Your task to perform on an android device: What's a goodrestaurant in Austin? Image 0: 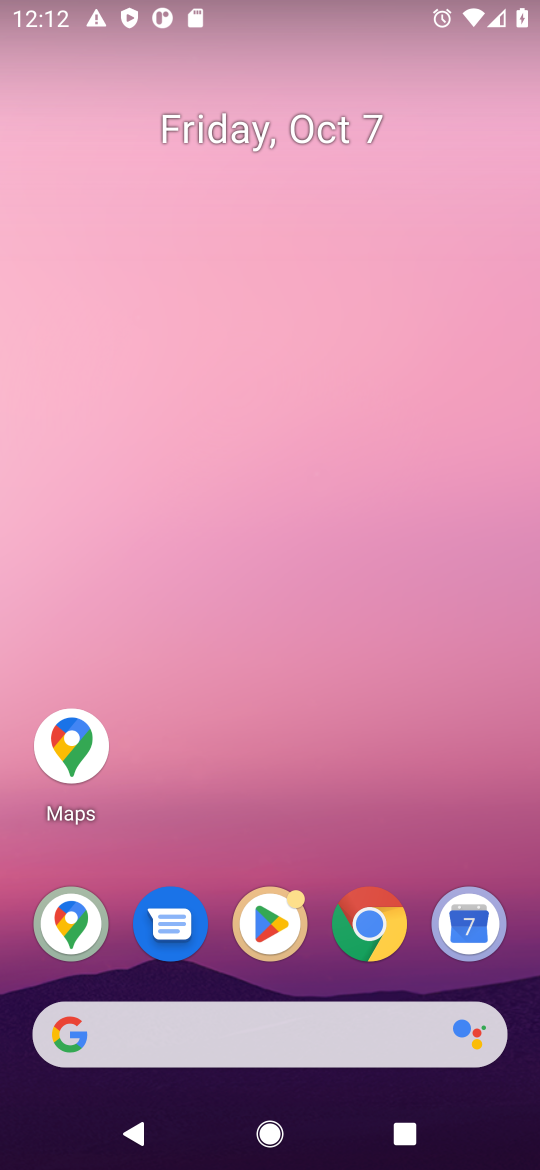
Step 0: click (62, 744)
Your task to perform on an android device: What's a goodrestaurant in Austin? Image 1: 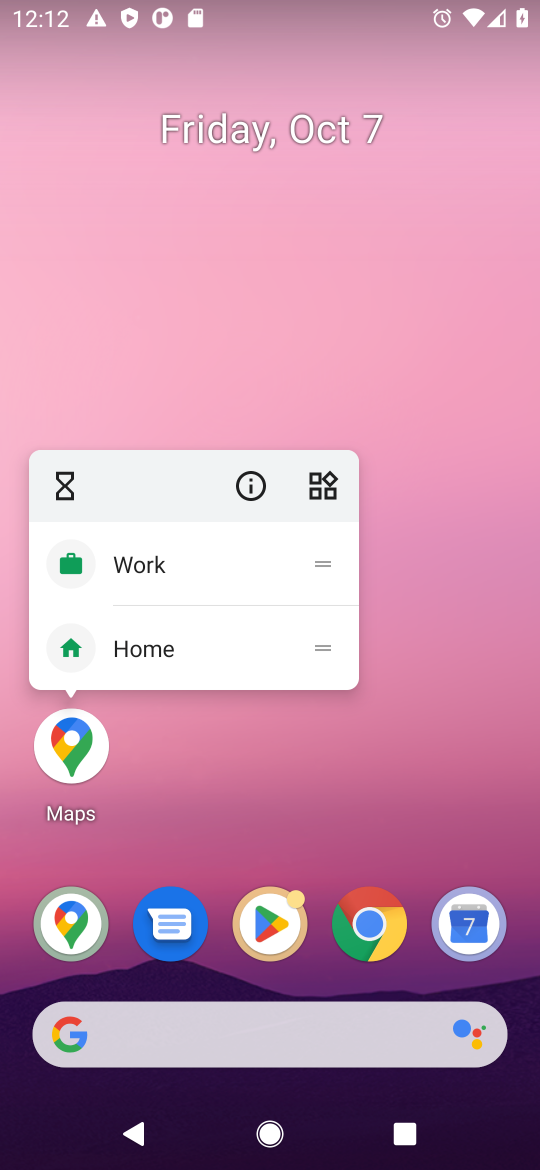
Step 1: click (368, 901)
Your task to perform on an android device: What's a goodrestaurant in Austin? Image 2: 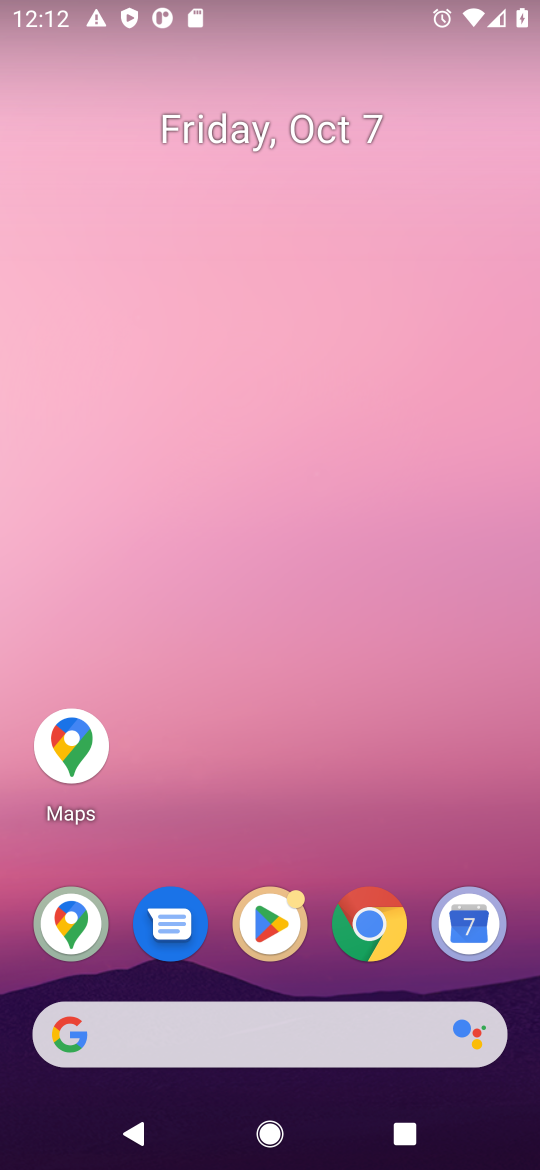
Step 2: click (376, 919)
Your task to perform on an android device: What's a goodrestaurant in Austin? Image 3: 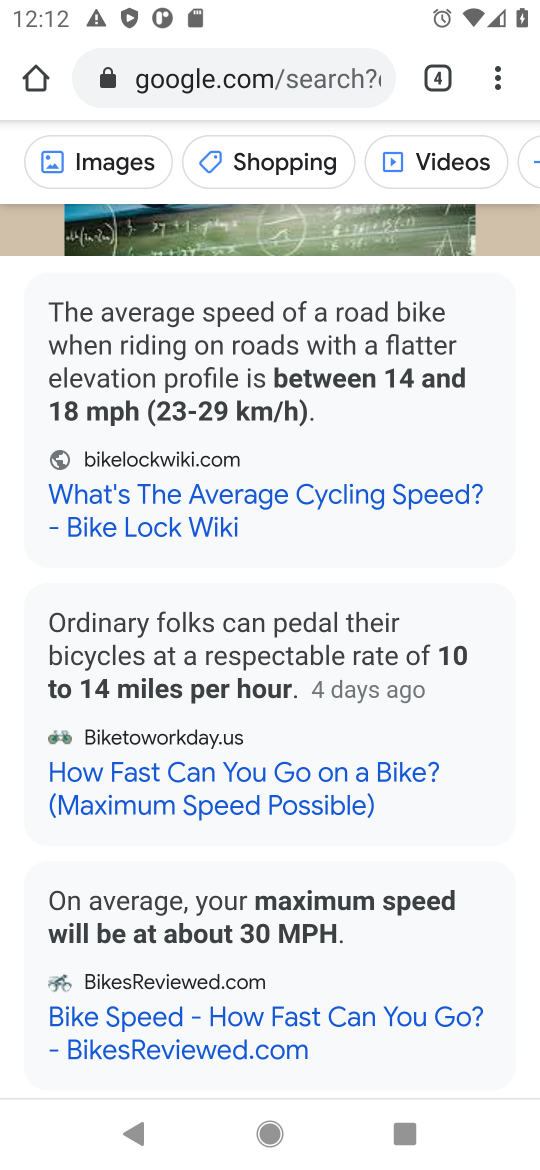
Step 3: click (316, 73)
Your task to perform on an android device: What's a goodrestaurant in Austin? Image 4: 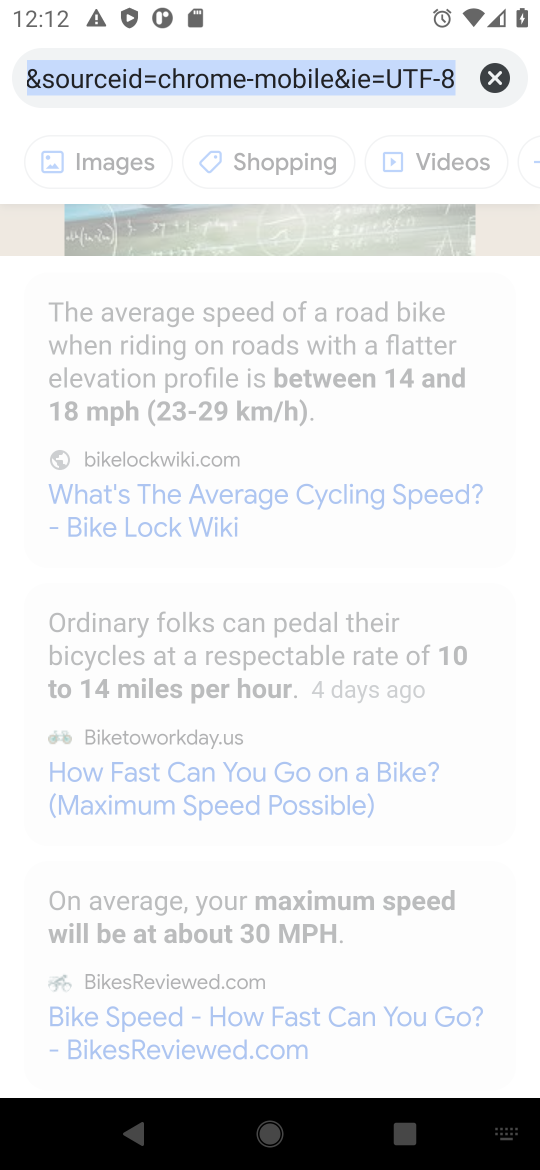
Step 4: click (493, 69)
Your task to perform on an android device: What's a goodrestaurant in Austin? Image 5: 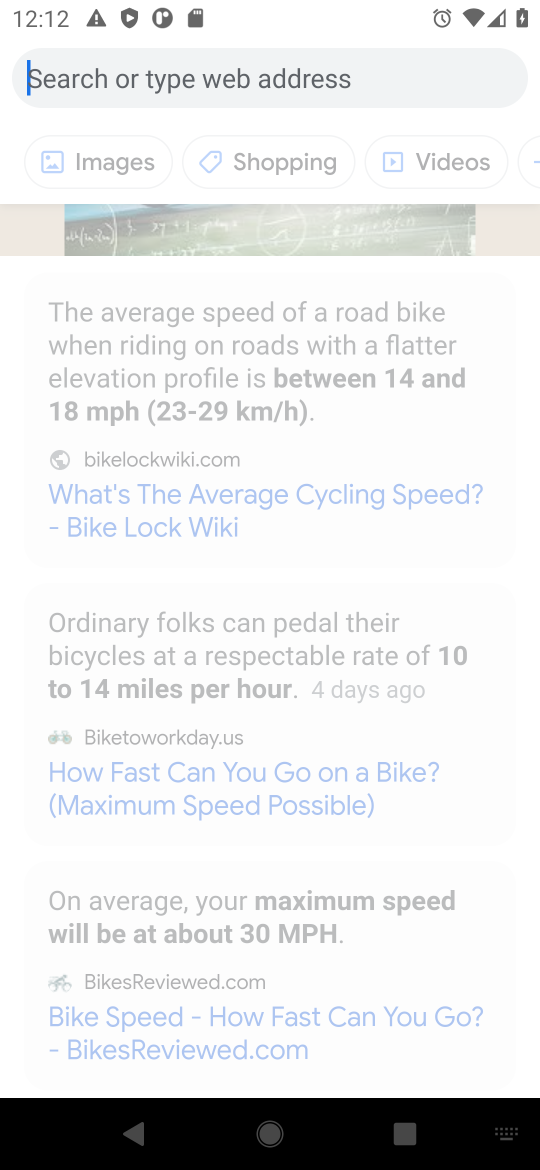
Step 5: type "good restaurant in Austin"
Your task to perform on an android device: What's a goodrestaurant in Austin? Image 6: 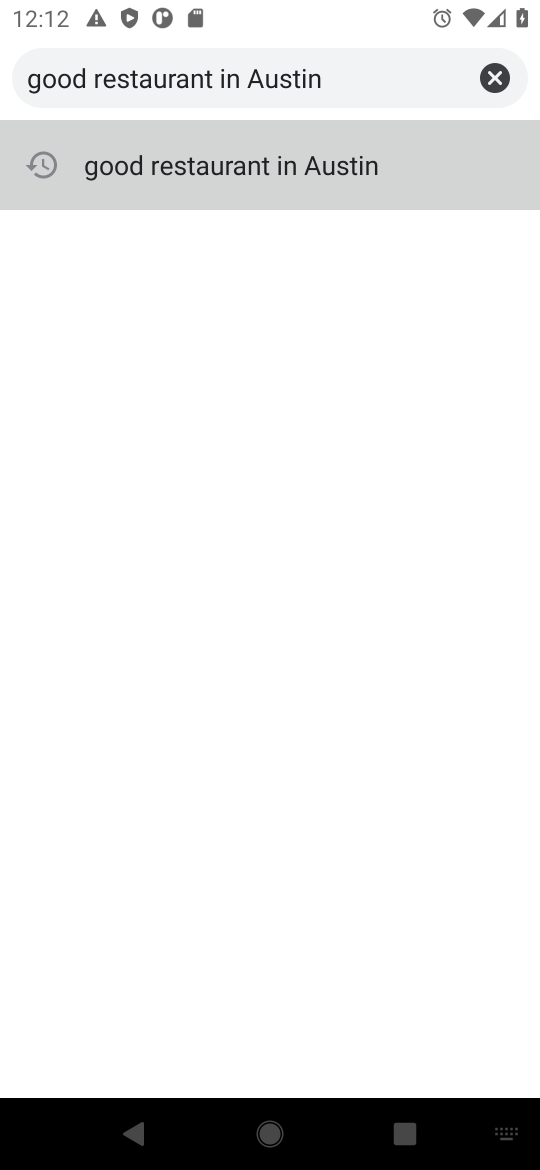
Step 6: click (199, 170)
Your task to perform on an android device: What's a goodrestaurant in Austin? Image 7: 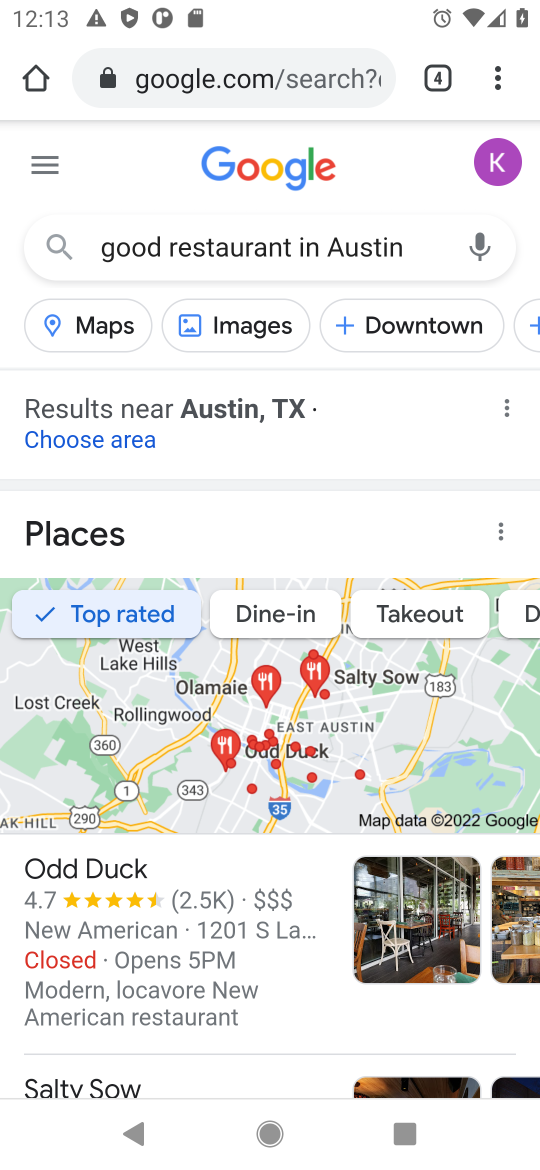
Step 7: drag from (244, 971) to (402, 292)
Your task to perform on an android device: What's a goodrestaurant in Austin? Image 8: 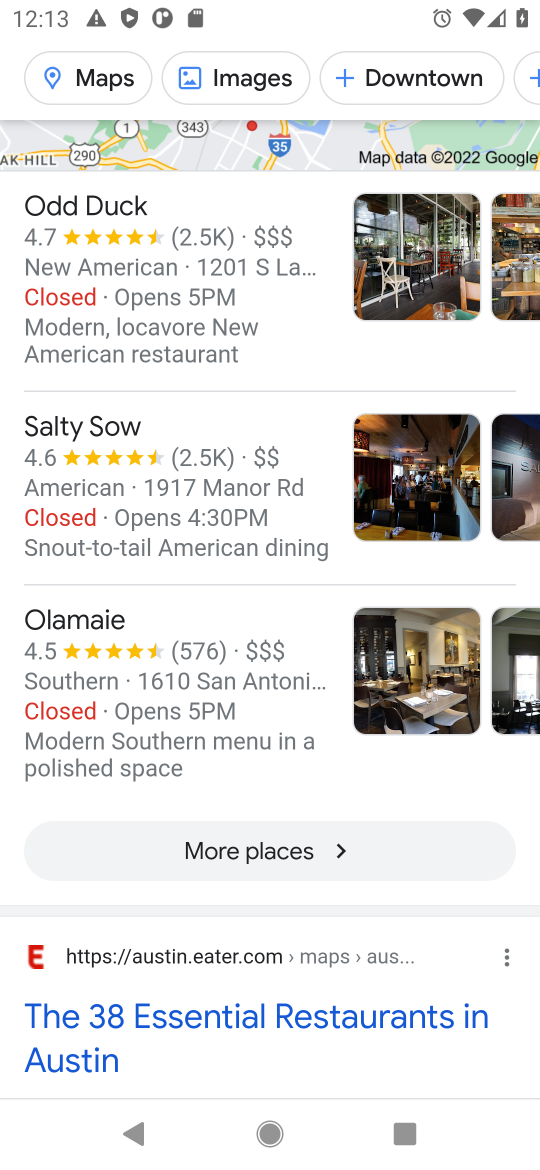
Step 8: click (331, 850)
Your task to perform on an android device: What's a goodrestaurant in Austin? Image 9: 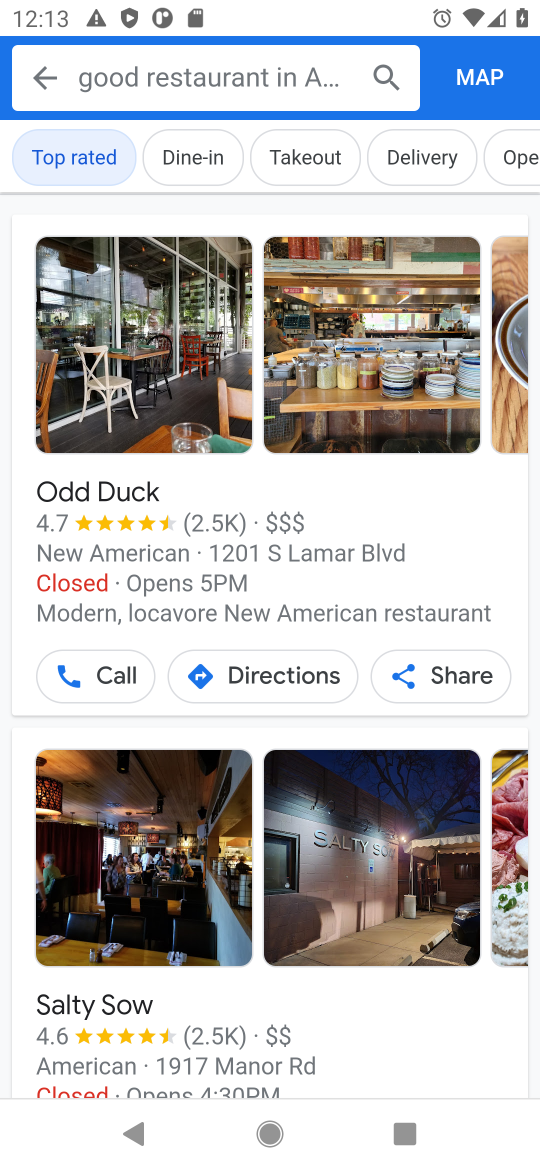
Step 9: task complete